Your task to perform on an android device: change the clock style Image 0: 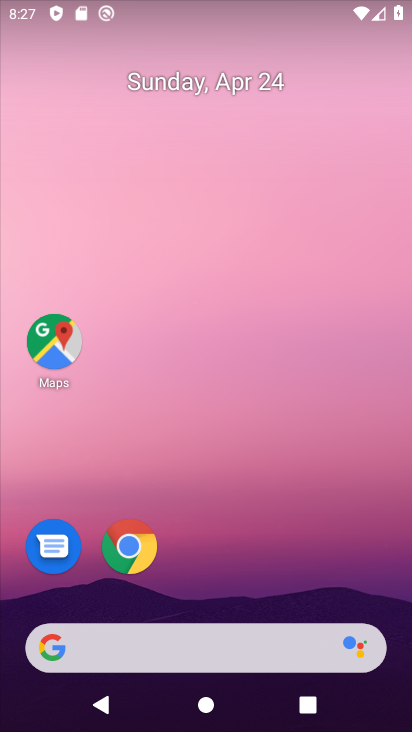
Step 0: drag from (242, 604) to (243, 179)
Your task to perform on an android device: change the clock style Image 1: 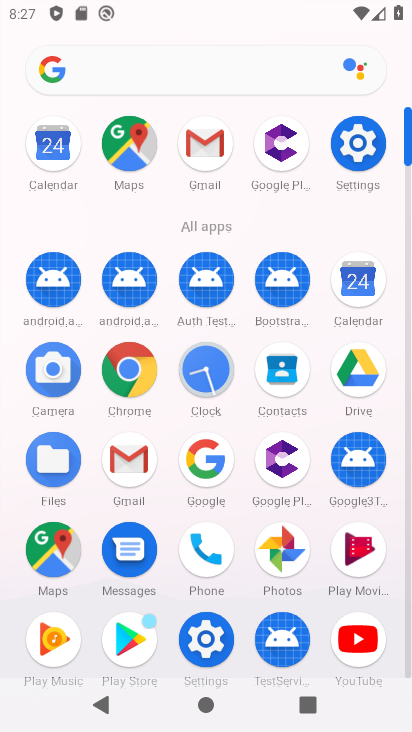
Step 1: click (217, 364)
Your task to perform on an android device: change the clock style Image 2: 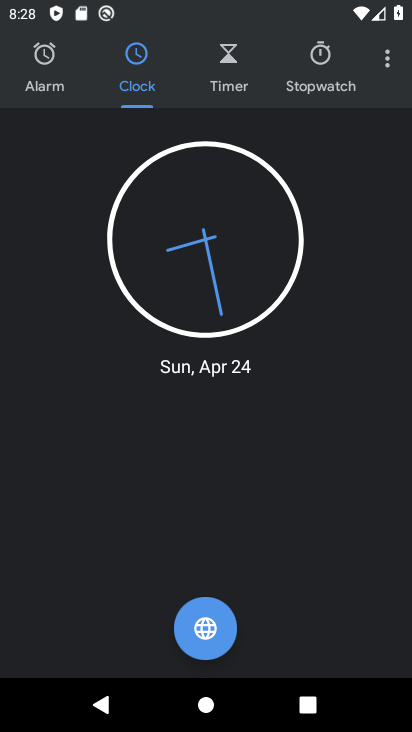
Step 2: click (400, 73)
Your task to perform on an android device: change the clock style Image 3: 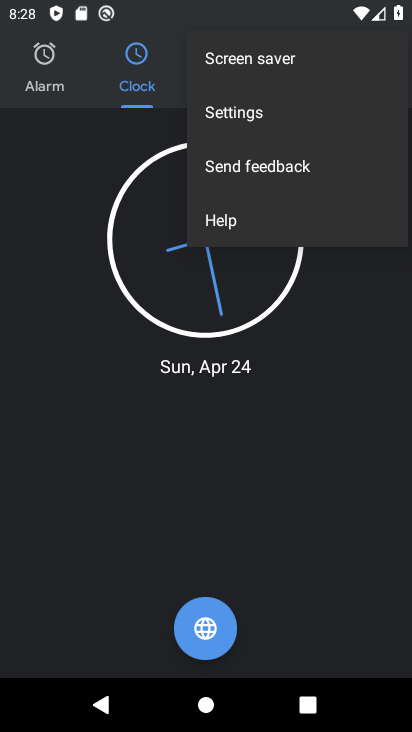
Step 3: click (220, 114)
Your task to perform on an android device: change the clock style Image 4: 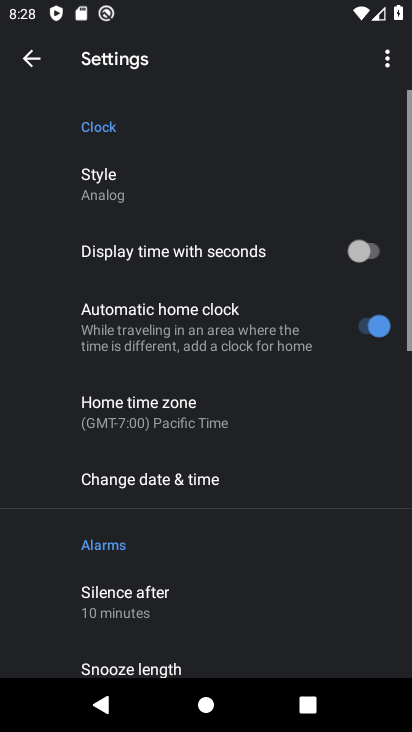
Step 4: click (130, 186)
Your task to perform on an android device: change the clock style Image 5: 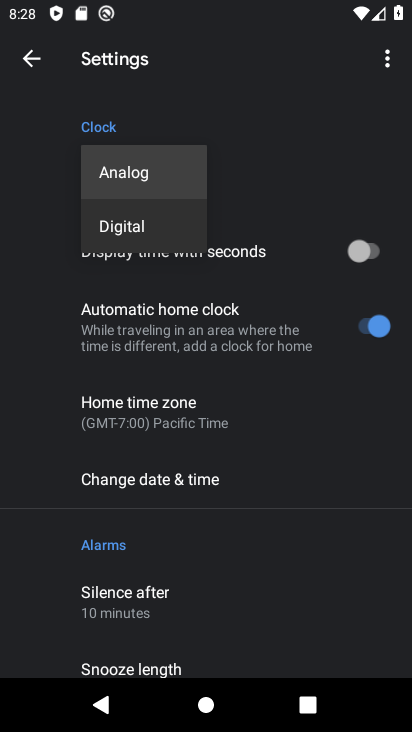
Step 5: click (138, 229)
Your task to perform on an android device: change the clock style Image 6: 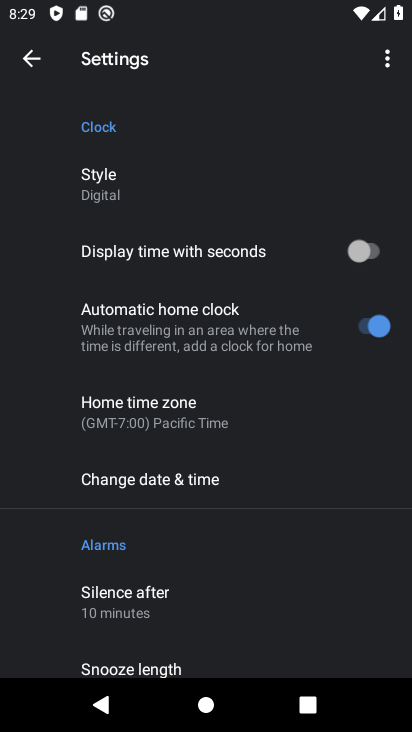
Step 6: task complete